Your task to perform on an android device: see tabs open on other devices in the chrome app Image 0: 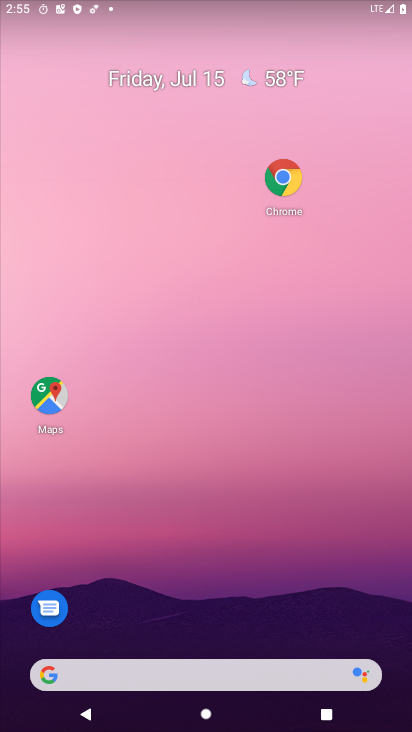
Step 0: drag from (290, 591) to (267, 140)
Your task to perform on an android device: see tabs open on other devices in the chrome app Image 1: 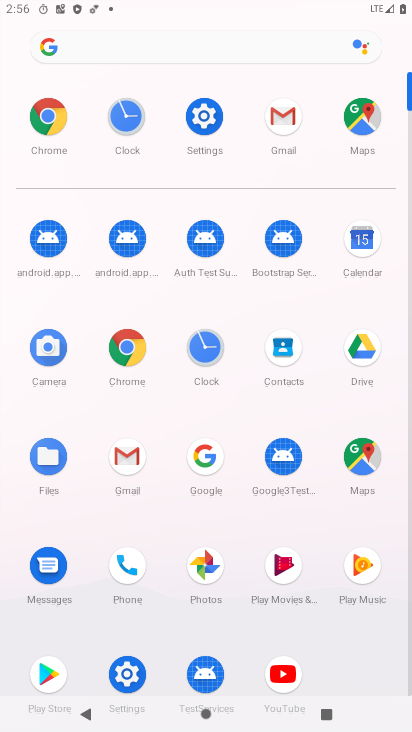
Step 1: click (141, 360)
Your task to perform on an android device: see tabs open on other devices in the chrome app Image 2: 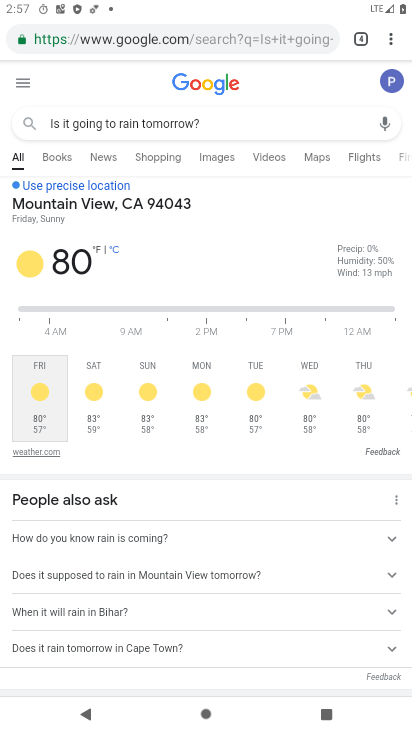
Step 2: task complete